Your task to perform on an android device: Open Google Maps and go to "Timeline" Image 0: 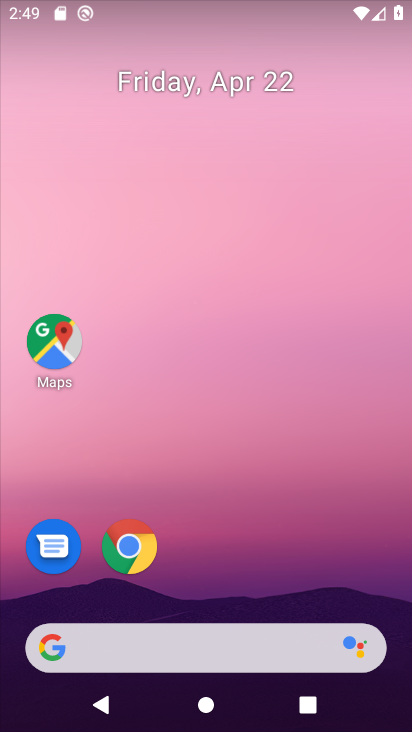
Step 0: drag from (352, 436) to (340, 132)
Your task to perform on an android device: Open Google Maps and go to "Timeline" Image 1: 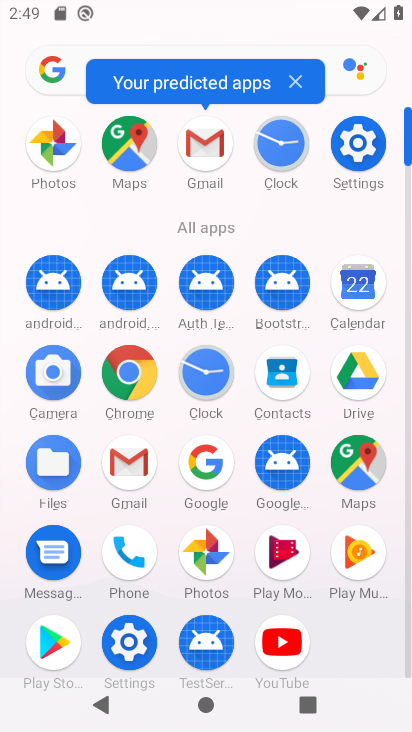
Step 1: click (369, 470)
Your task to perform on an android device: Open Google Maps and go to "Timeline" Image 2: 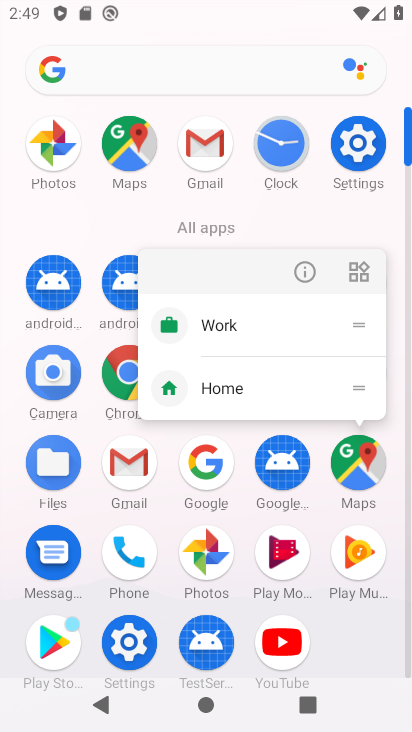
Step 2: click (360, 485)
Your task to perform on an android device: Open Google Maps and go to "Timeline" Image 3: 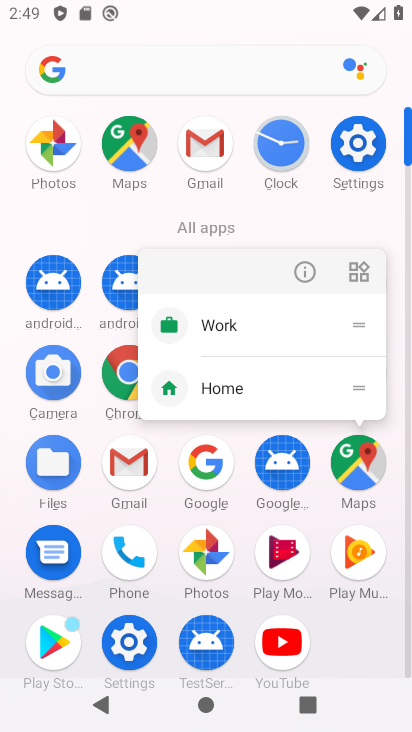
Step 3: click (352, 483)
Your task to perform on an android device: Open Google Maps and go to "Timeline" Image 4: 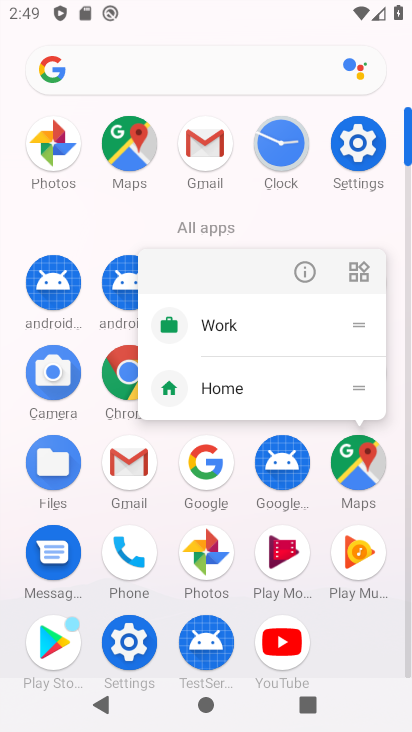
Step 4: click (352, 483)
Your task to perform on an android device: Open Google Maps and go to "Timeline" Image 5: 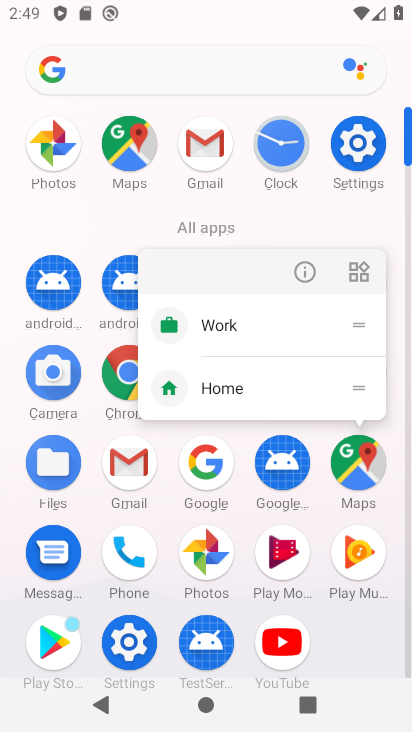
Step 5: click (352, 483)
Your task to perform on an android device: Open Google Maps and go to "Timeline" Image 6: 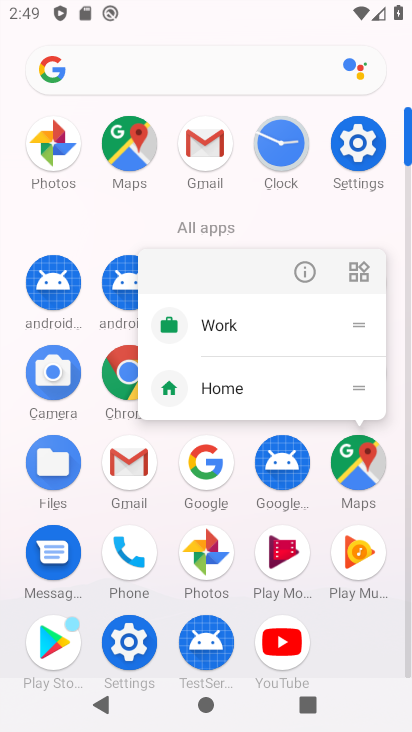
Step 6: click (357, 492)
Your task to perform on an android device: Open Google Maps and go to "Timeline" Image 7: 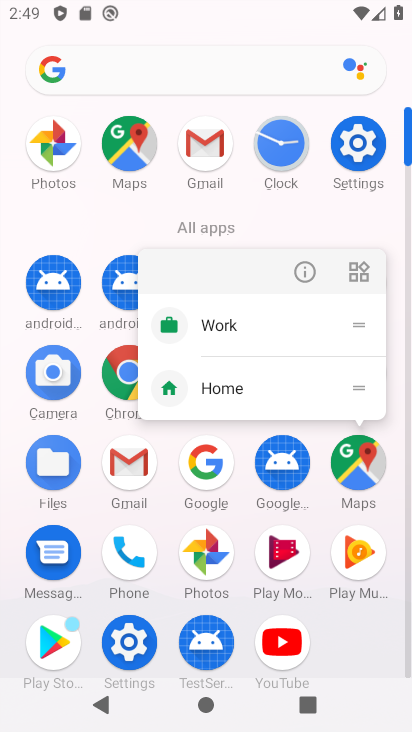
Step 7: click (368, 478)
Your task to perform on an android device: Open Google Maps and go to "Timeline" Image 8: 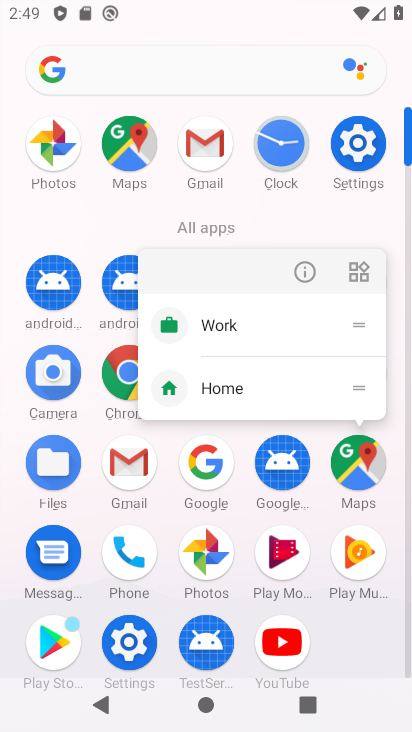
Step 8: click (335, 482)
Your task to perform on an android device: Open Google Maps and go to "Timeline" Image 9: 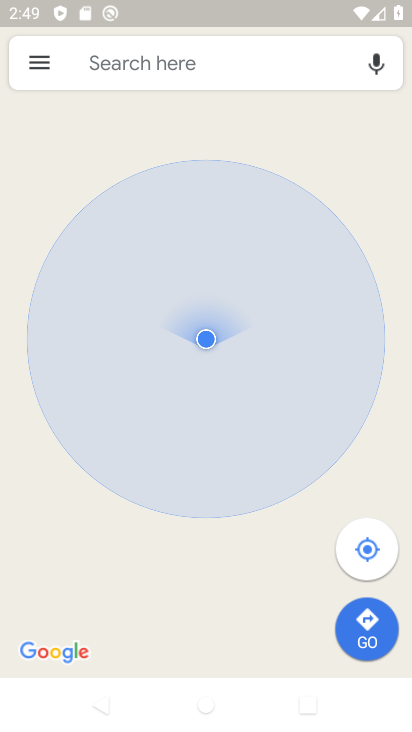
Step 9: click (37, 55)
Your task to perform on an android device: Open Google Maps and go to "Timeline" Image 10: 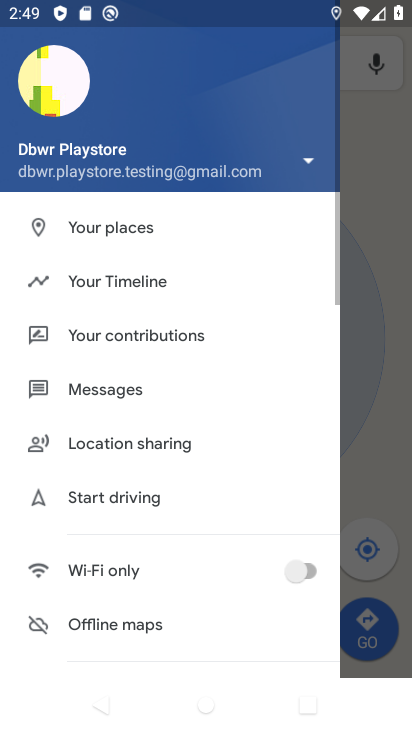
Step 10: click (62, 270)
Your task to perform on an android device: Open Google Maps and go to "Timeline" Image 11: 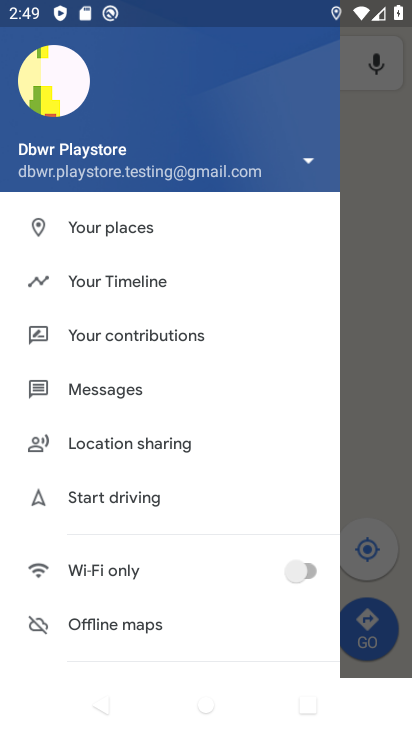
Step 11: click (112, 277)
Your task to perform on an android device: Open Google Maps and go to "Timeline" Image 12: 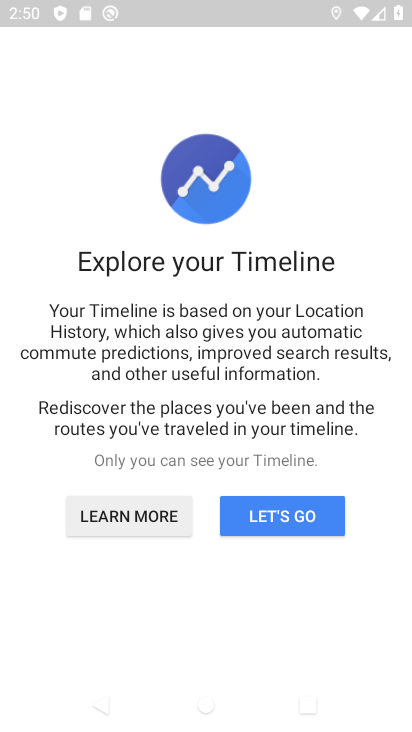
Step 12: click (300, 526)
Your task to perform on an android device: Open Google Maps and go to "Timeline" Image 13: 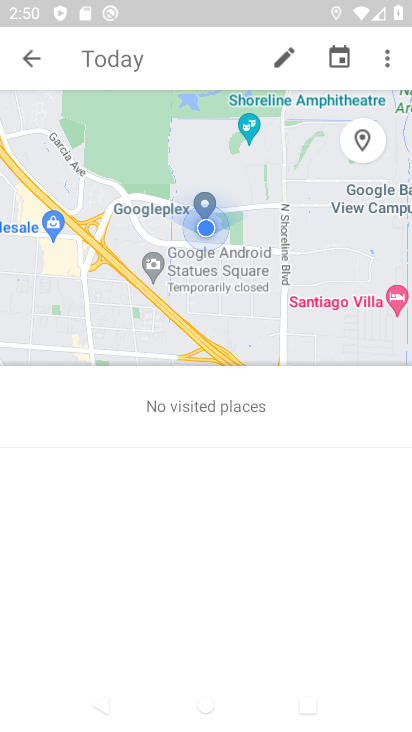
Step 13: task complete